Your task to perform on an android device: Open eBay Image 0: 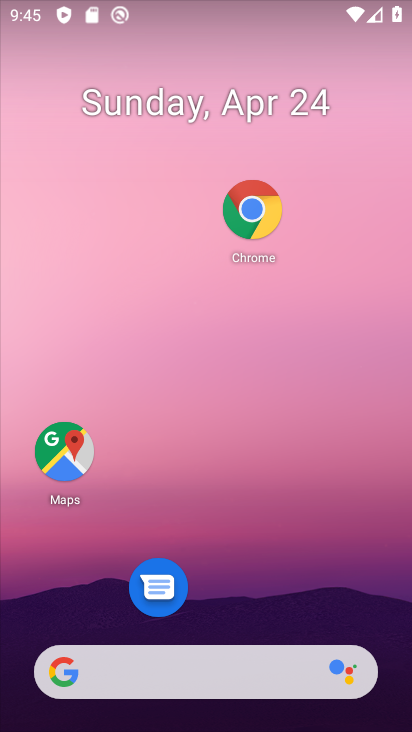
Step 0: drag from (198, 625) to (209, 20)
Your task to perform on an android device: Open eBay Image 1: 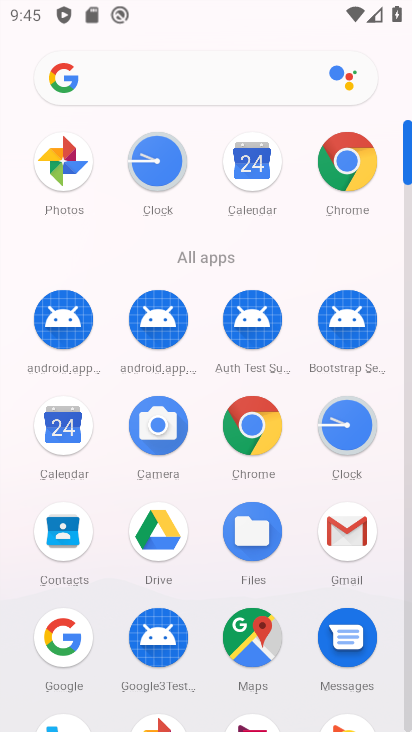
Step 1: click (253, 413)
Your task to perform on an android device: Open eBay Image 2: 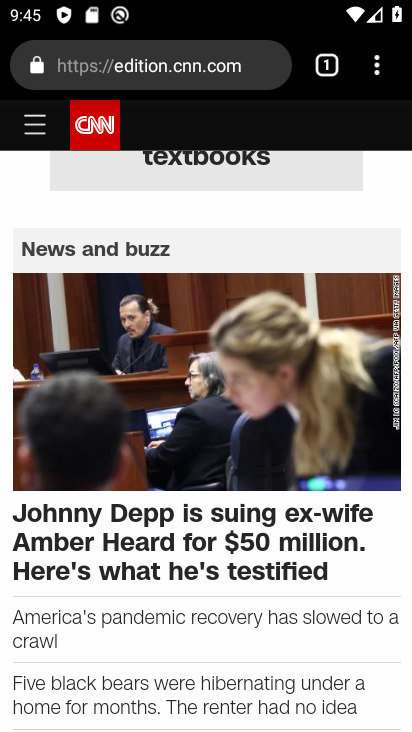
Step 2: click (329, 64)
Your task to perform on an android device: Open eBay Image 3: 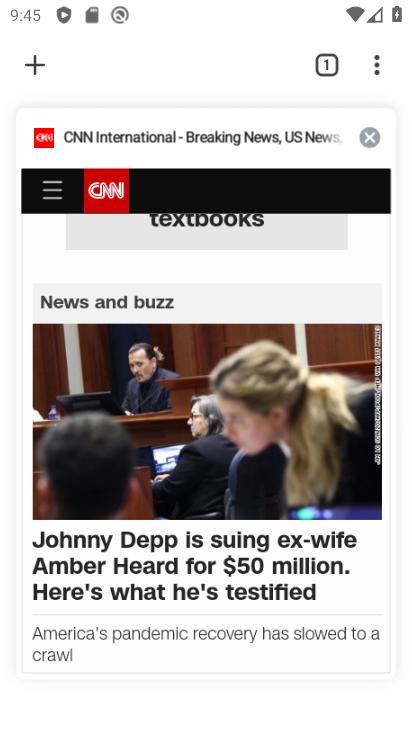
Step 3: click (371, 135)
Your task to perform on an android device: Open eBay Image 4: 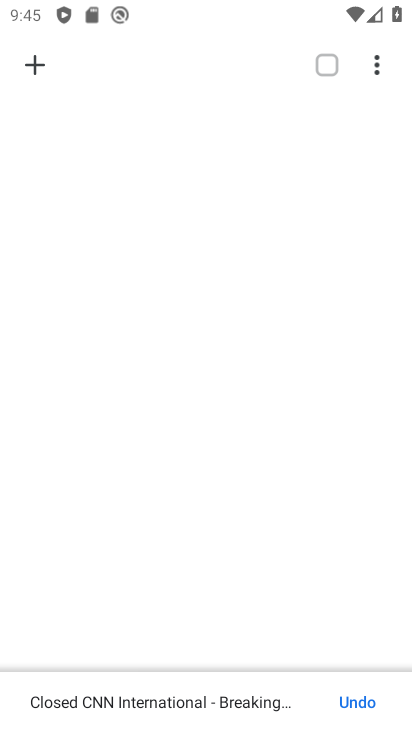
Step 4: click (35, 66)
Your task to perform on an android device: Open eBay Image 5: 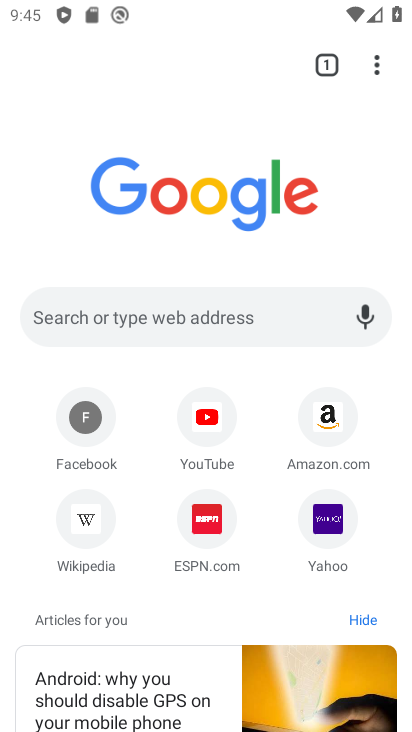
Step 5: click (137, 307)
Your task to perform on an android device: Open eBay Image 6: 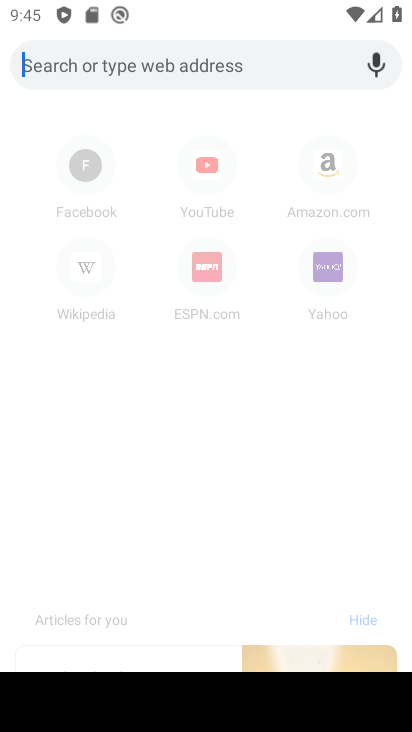
Step 6: type "ebay"
Your task to perform on an android device: Open eBay Image 7: 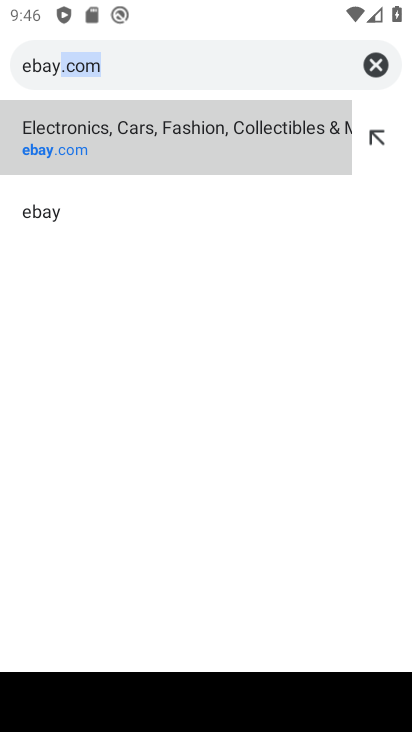
Step 7: click (105, 158)
Your task to perform on an android device: Open eBay Image 8: 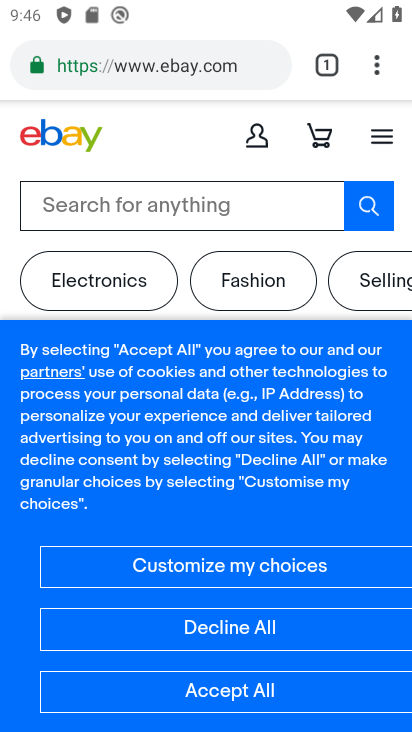
Step 8: click (241, 699)
Your task to perform on an android device: Open eBay Image 9: 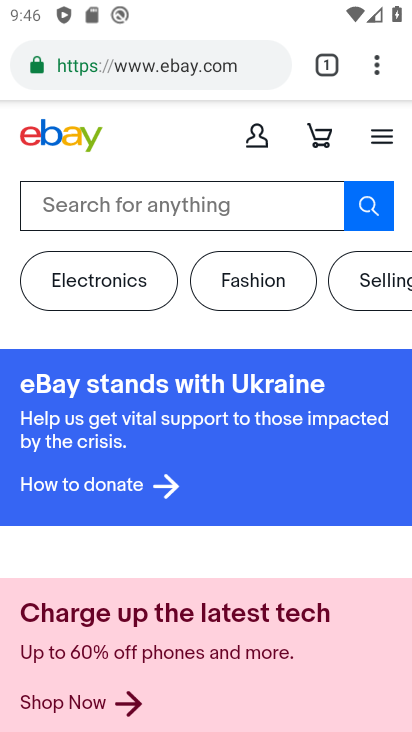
Step 9: task complete